Your task to perform on an android device: check out phone information Image 0: 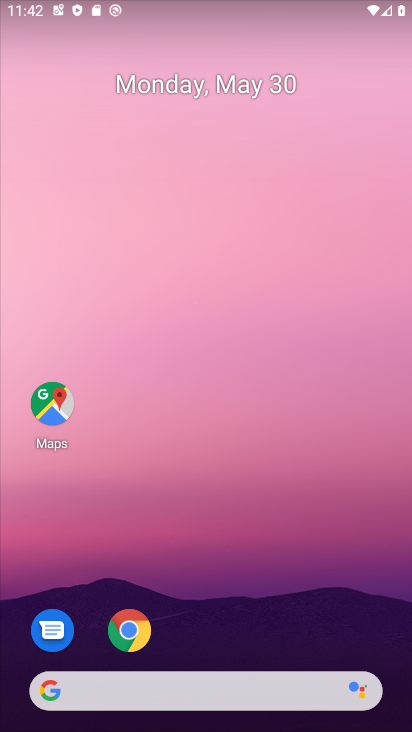
Step 0: drag from (241, 639) to (249, 47)
Your task to perform on an android device: check out phone information Image 1: 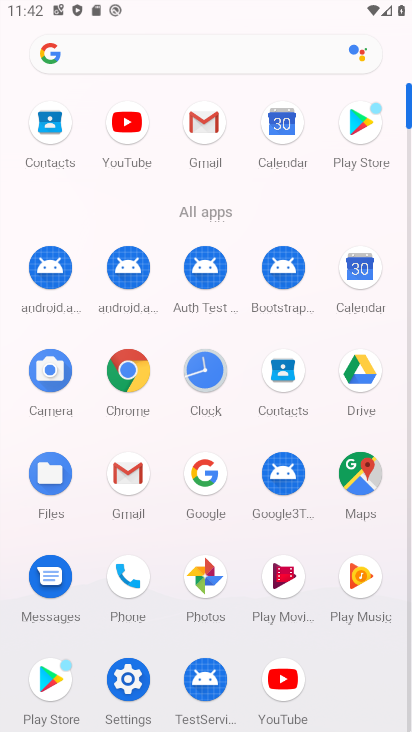
Step 1: click (125, 691)
Your task to perform on an android device: check out phone information Image 2: 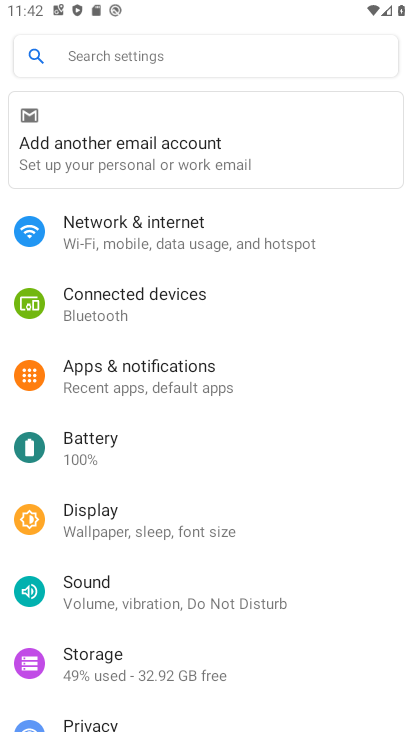
Step 2: drag from (192, 679) to (213, 30)
Your task to perform on an android device: check out phone information Image 3: 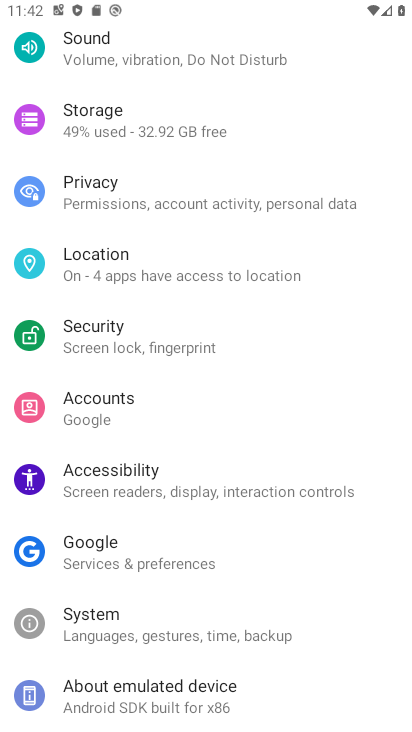
Step 3: click (108, 705)
Your task to perform on an android device: check out phone information Image 4: 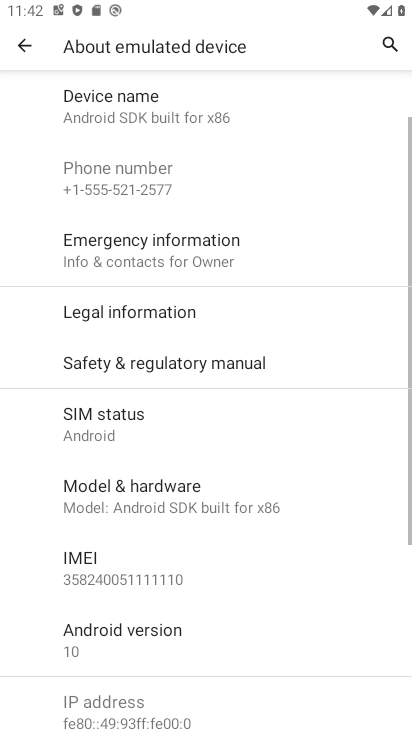
Step 4: task complete